Your task to perform on an android device: toggle notification dots Image 0: 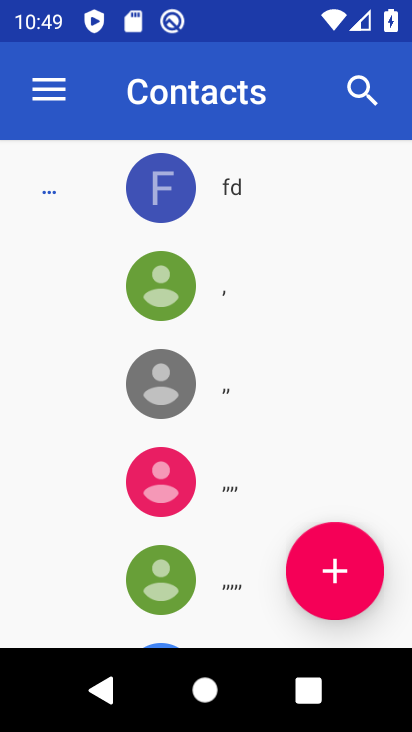
Step 0: press home button
Your task to perform on an android device: toggle notification dots Image 1: 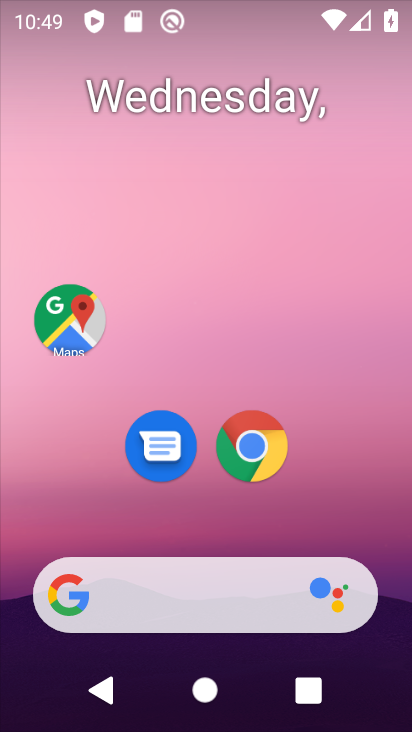
Step 1: drag from (389, 537) to (379, 197)
Your task to perform on an android device: toggle notification dots Image 2: 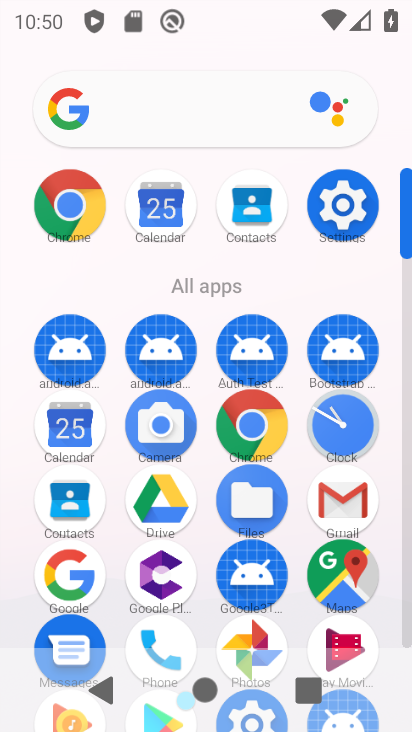
Step 2: click (348, 217)
Your task to perform on an android device: toggle notification dots Image 3: 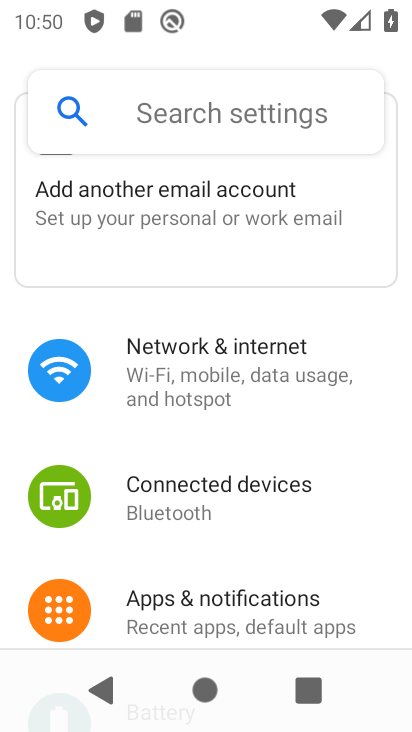
Step 3: drag from (362, 476) to (364, 393)
Your task to perform on an android device: toggle notification dots Image 4: 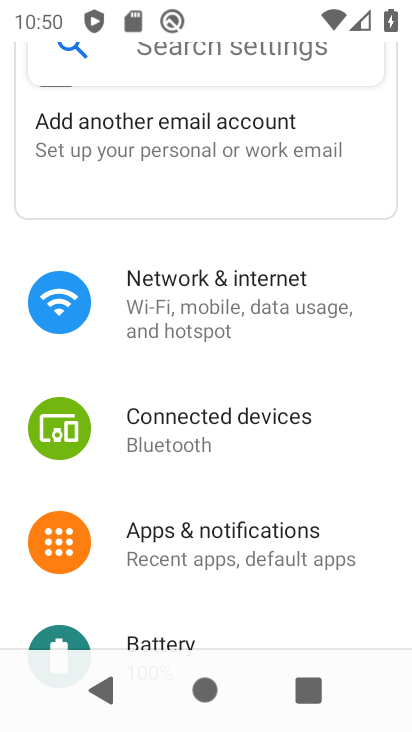
Step 4: drag from (353, 501) to (361, 393)
Your task to perform on an android device: toggle notification dots Image 5: 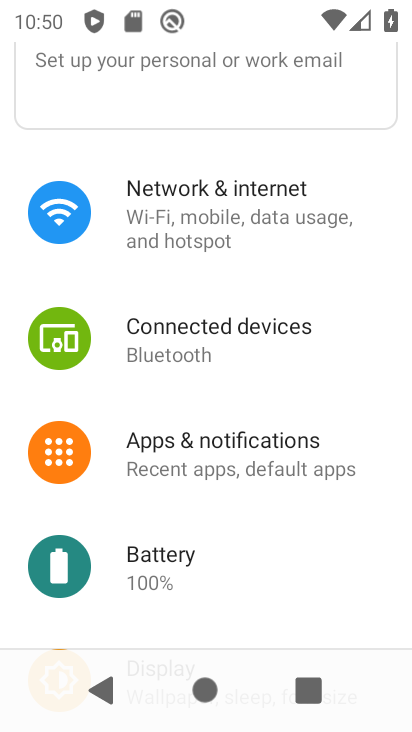
Step 5: drag from (361, 543) to (370, 409)
Your task to perform on an android device: toggle notification dots Image 6: 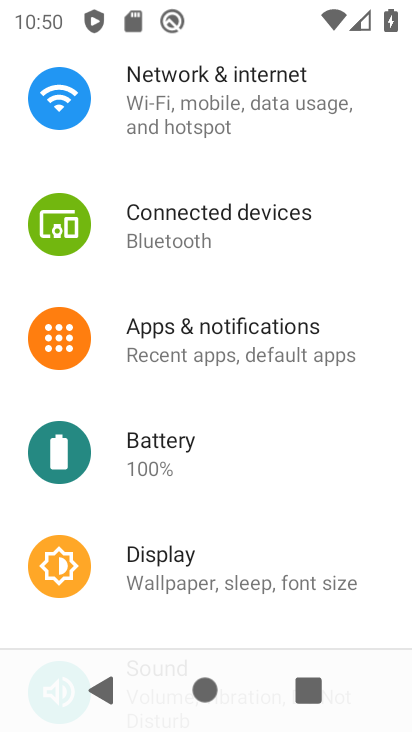
Step 6: drag from (371, 549) to (372, 458)
Your task to perform on an android device: toggle notification dots Image 7: 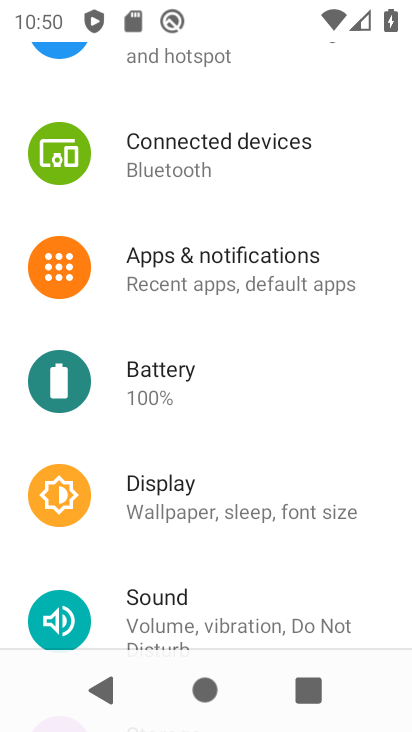
Step 7: drag from (383, 534) to (379, 479)
Your task to perform on an android device: toggle notification dots Image 8: 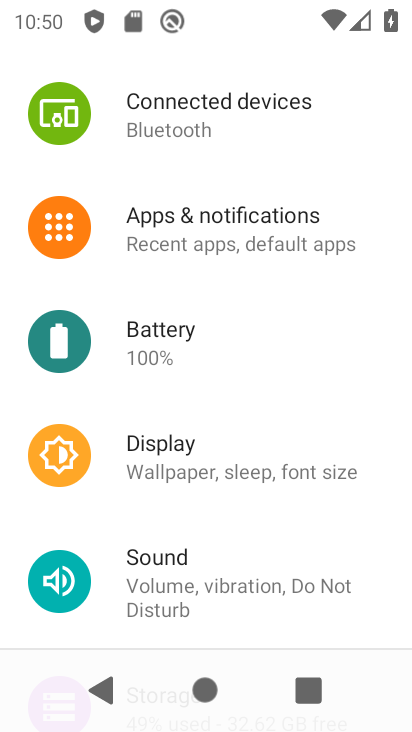
Step 8: click (331, 245)
Your task to perform on an android device: toggle notification dots Image 9: 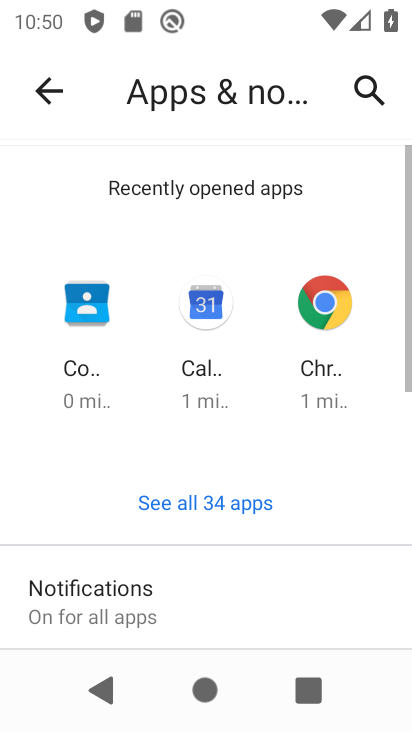
Step 9: drag from (308, 533) to (313, 426)
Your task to perform on an android device: toggle notification dots Image 10: 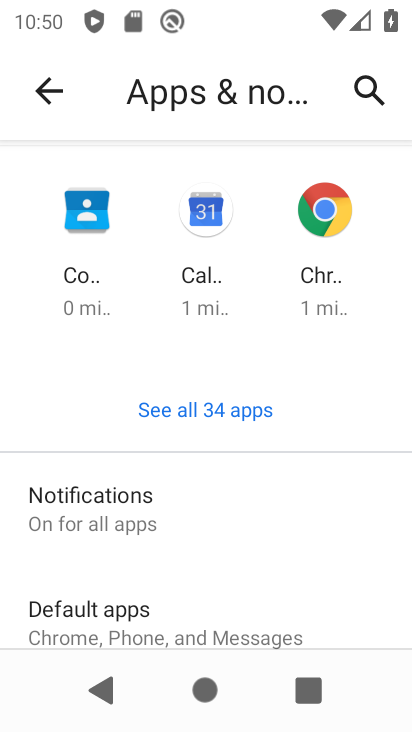
Step 10: drag from (327, 523) to (327, 422)
Your task to perform on an android device: toggle notification dots Image 11: 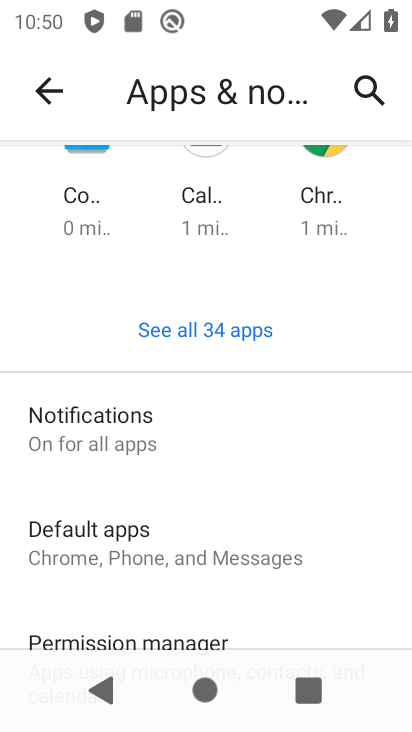
Step 11: drag from (327, 546) to (323, 416)
Your task to perform on an android device: toggle notification dots Image 12: 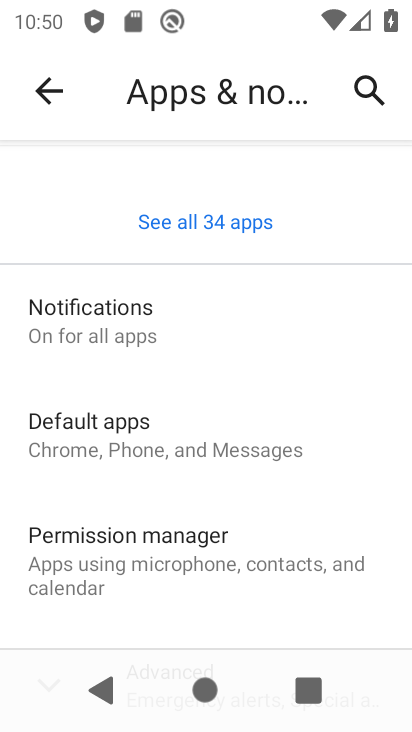
Step 12: drag from (326, 578) to (356, 400)
Your task to perform on an android device: toggle notification dots Image 13: 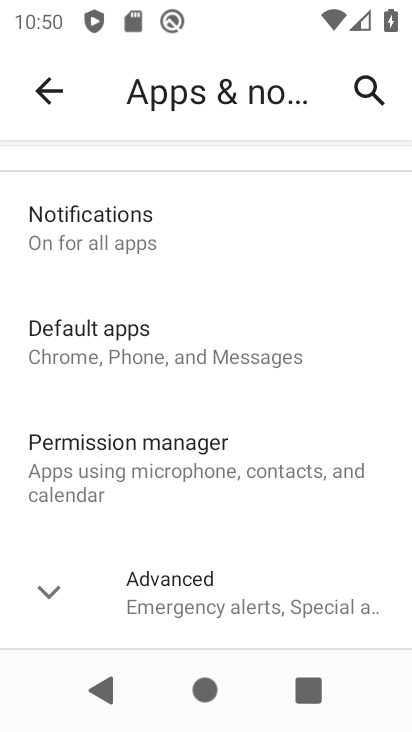
Step 13: click (149, 245)
Your task to perform on an android device: toggle notification dots Image 14: 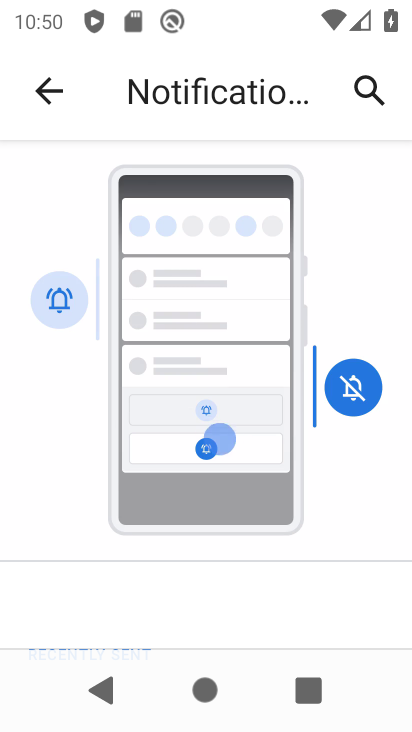
Step 14: drag from (323, 521) to (300, 352)
Your task to perform on an android device: toggle notification dots Image 15: 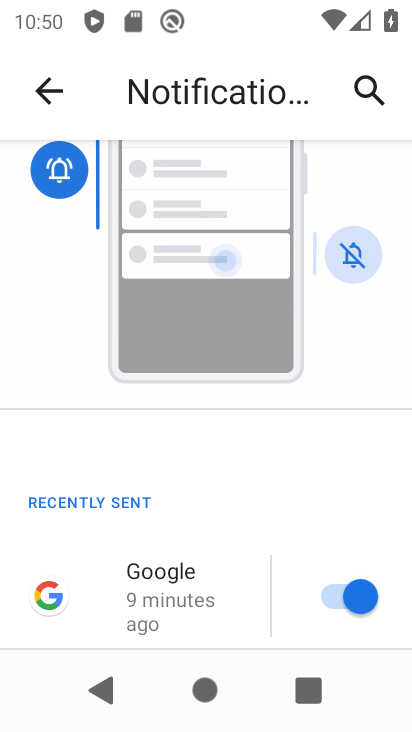
Step 15: drag from (252, 533) to (255, 401)
Your task to perform on an android device: toggle notification dots Image 16: 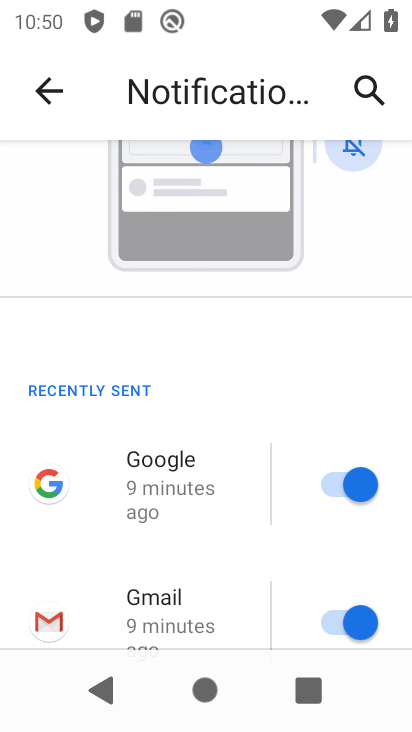
Step 16: drag from (216, 595) to (236, 390)
Your task to perform on an android device: toggle notification dots Image 17: 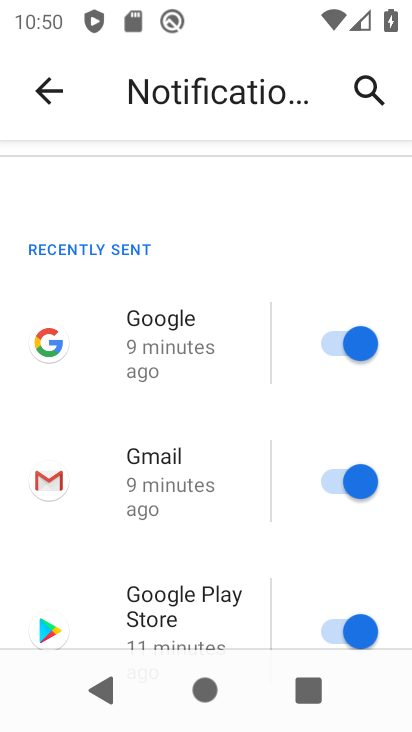
Step 17: drag from (242, 599) to (239, 425)
Your task to perform on an android device: toggle notification dots Image 18: 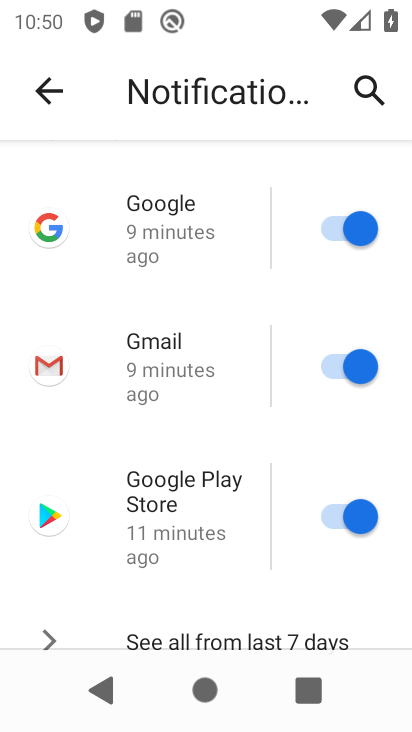
Step 18: drag from (245, 553) to (253, 392)
Your task to perform on an android device: toggle notification dots Image 19: 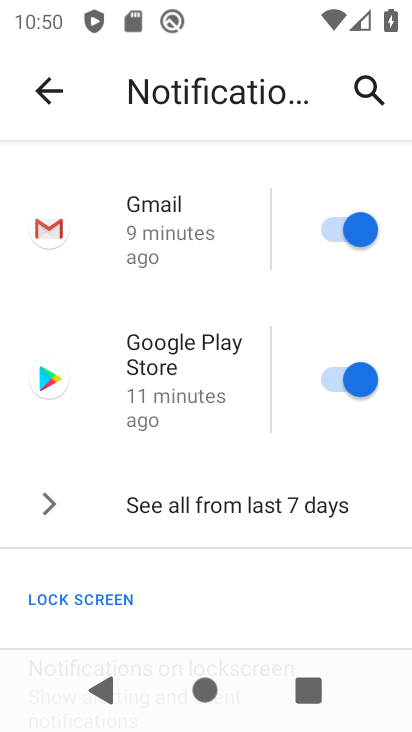
Step 19: drag from (253, 566) to (247, 429)
Your task to perform on an android device: toggle notification dots Image 20: 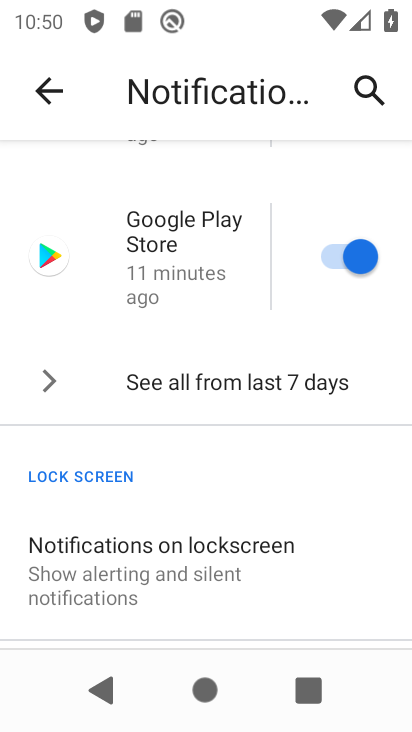
Step 20: drag from (267, 593) to (271, 431)
Your task to perform on an android device: toggle notification dots Image 21: 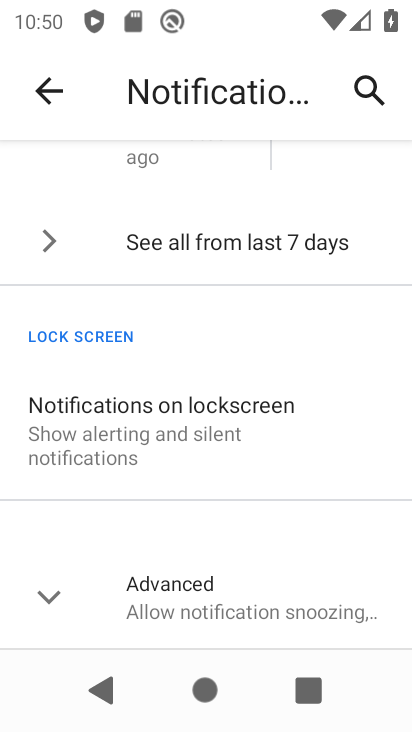
Step 21: drag from (276, 555) to (284, 456)
Your task to perform on an android device: toggle notification dots Image 22: 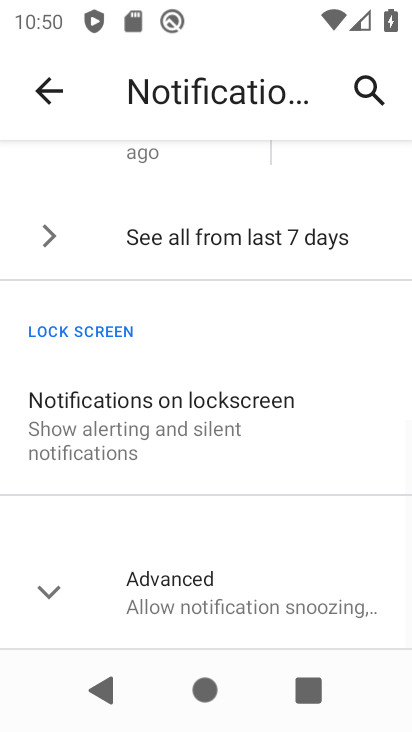
Step 22: click (255, 602)
Your task to perform on an android device: toggle notification dots Image 23: 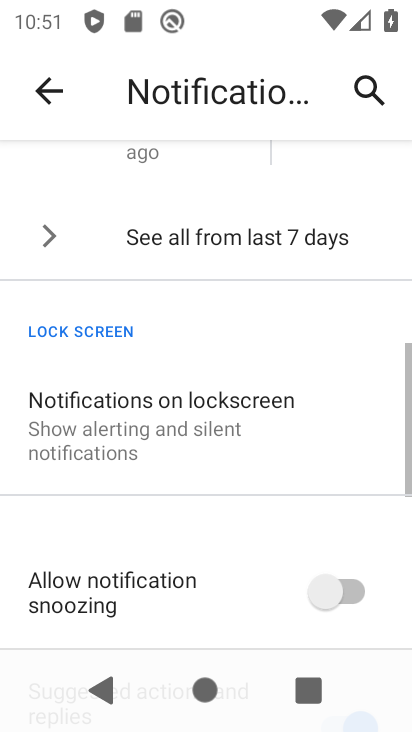
Step 23: drag from (255, 602) to (258, 501)
Your task to perform on an android device: toggle notification dots Image 24: 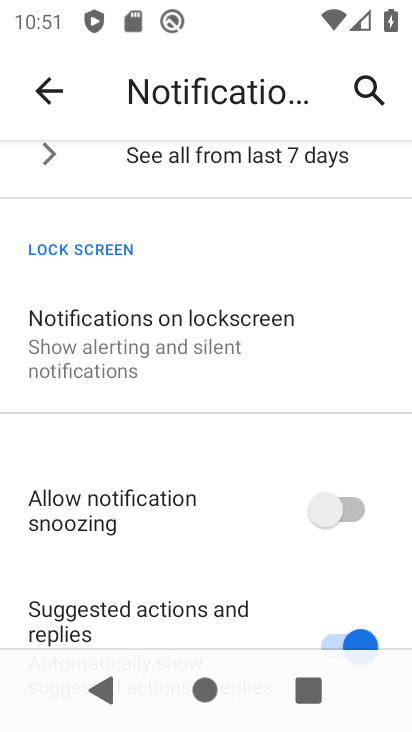
Step 24: drag from (273, 584) to (274, 468)
Your task to perform on an android device: toggle notification dots Image 25: 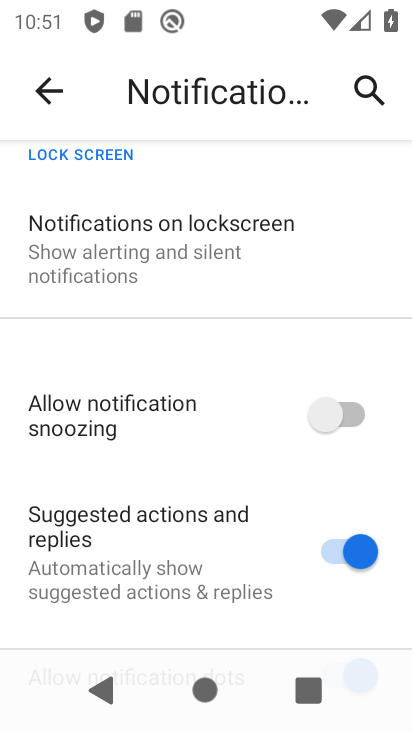
Step 25: drag from (275, 604) to (278, 513)
Your task to perform on an android device: toggle notification dots Image 26: 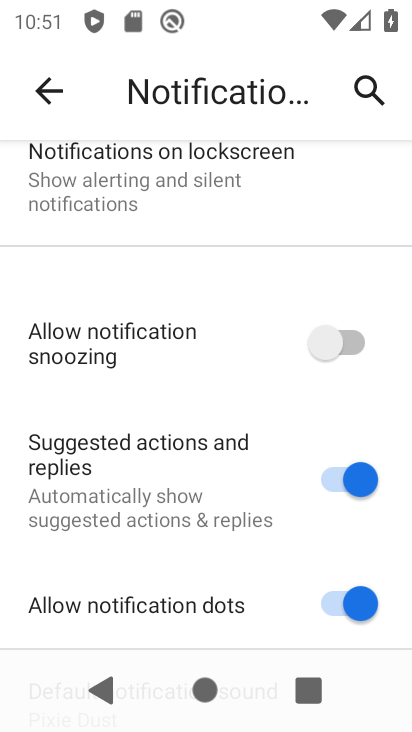
Step 26: drag from (265, 603) to (269, 503)
Your task to perform on an android device: toggle notification dots Image 27: 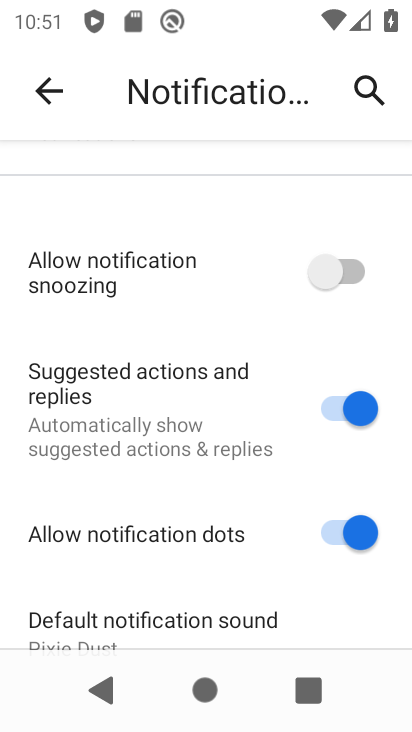
Step 27: click (347, 534)
Your task to perform on an android device: toggle notification dots Image 28: 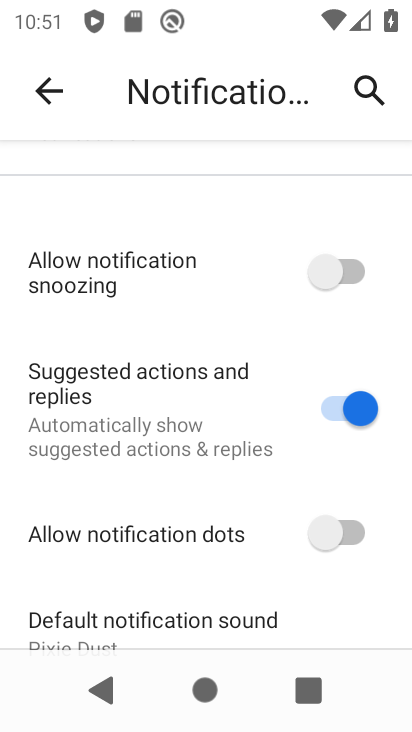
Step 28: task complete